Your task to perform on an android device: Set an alarm for 12pm Image 0: 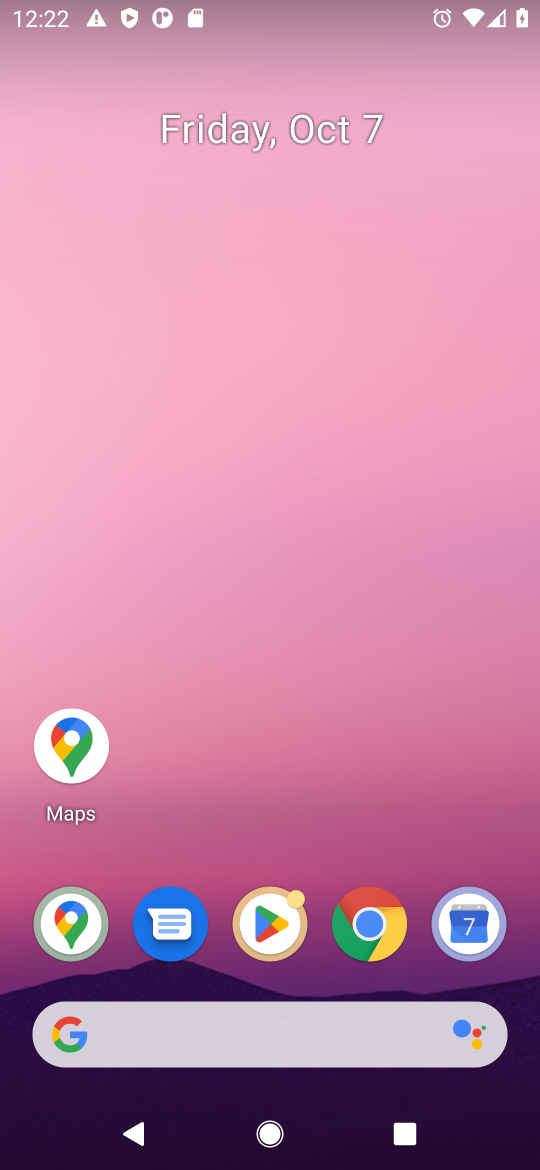
Step 0: drag from (290, 1006) to (512, 306)
Your task to perform on an android device: Set an alarm for 12pm Image 1: 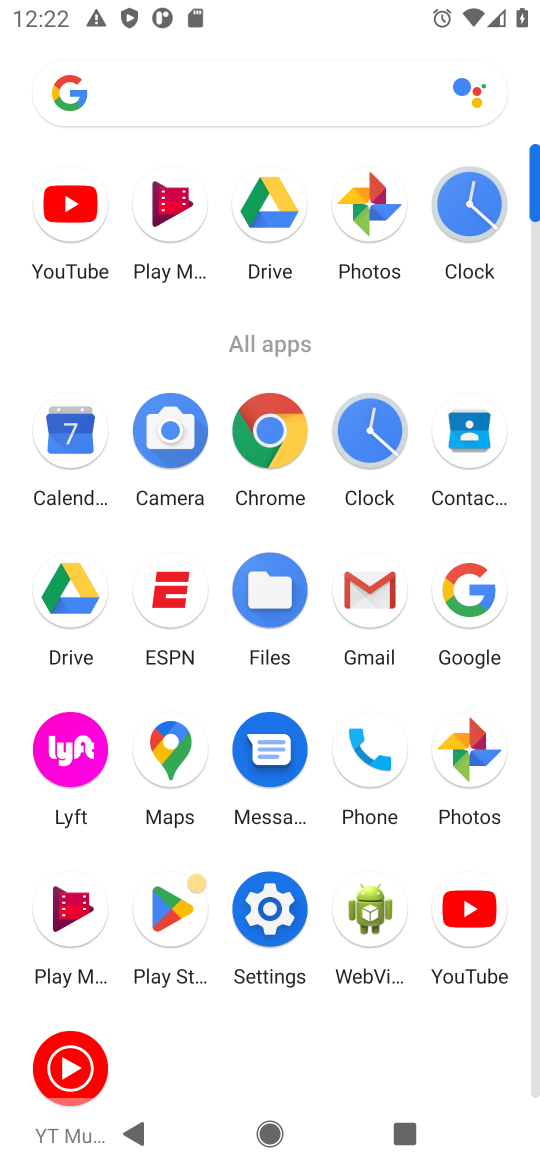
Step 1: click (473, 219)
Your task to perform on an android device: Set an alarm for 12pm Image 2: 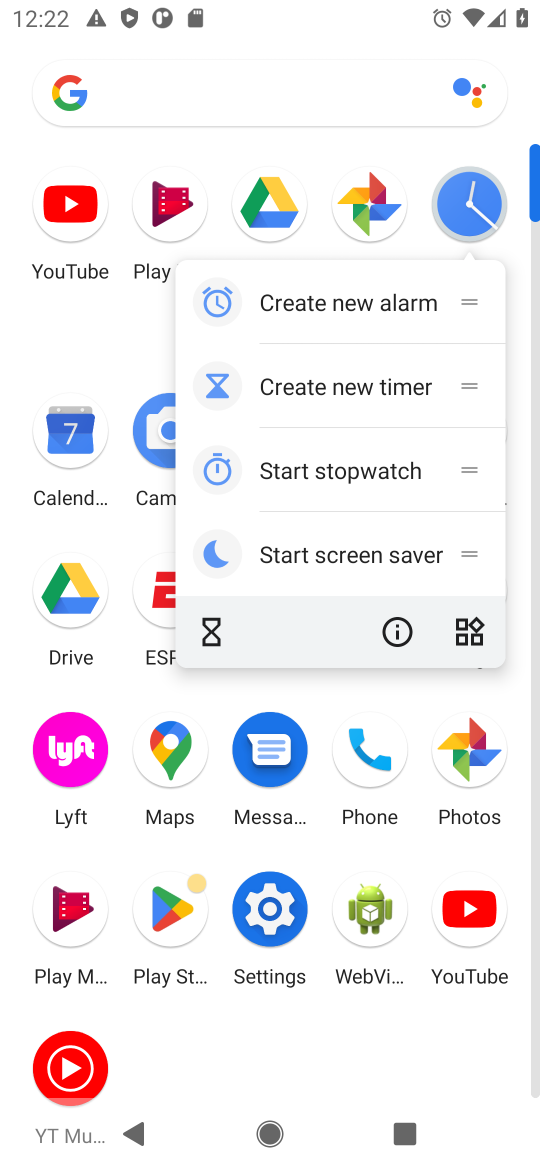
Step 2: click (458, 204)
Your task to perform on an android device: Set an alarm for 12pm Image 3: 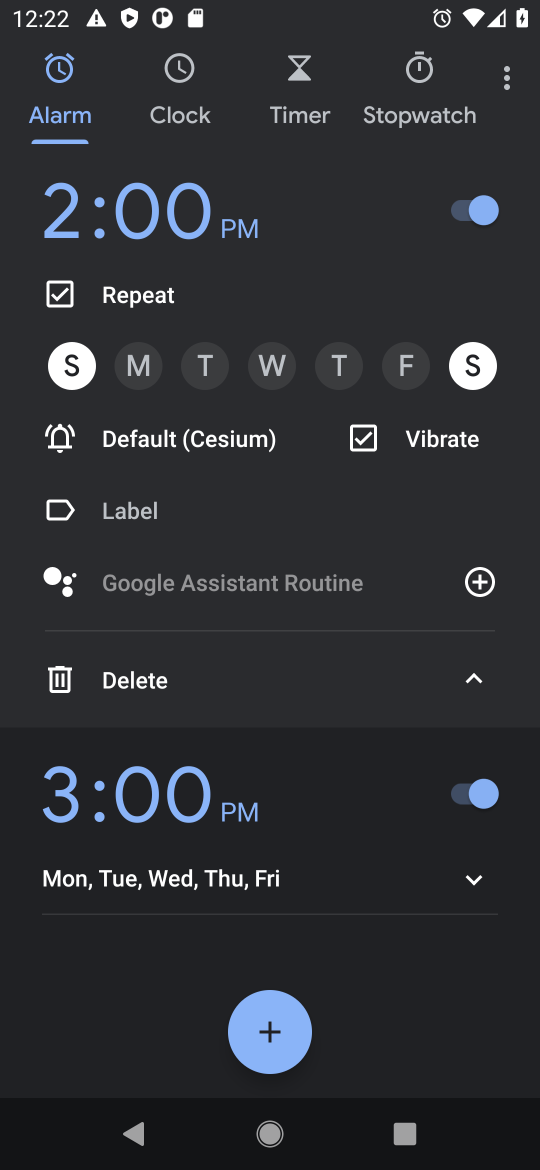
Step 3: click (241, 231)
Your task to perform on an android device: Set an alarm for 12pm Image 4: 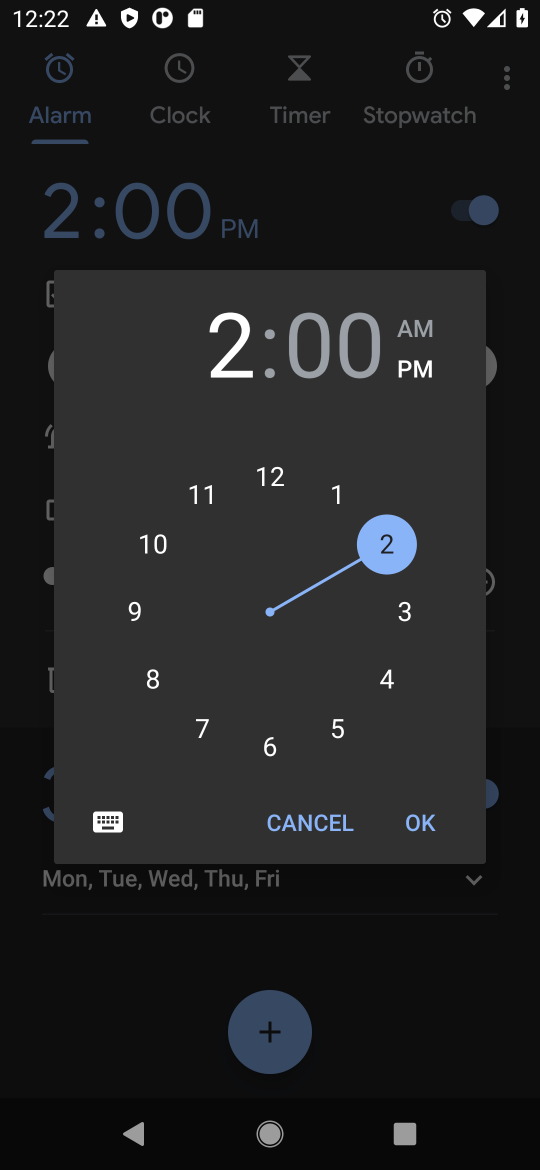
Step 4: click (265, 477)
Your task to perform on an android device: Set an alarm for 12pm Image 5: 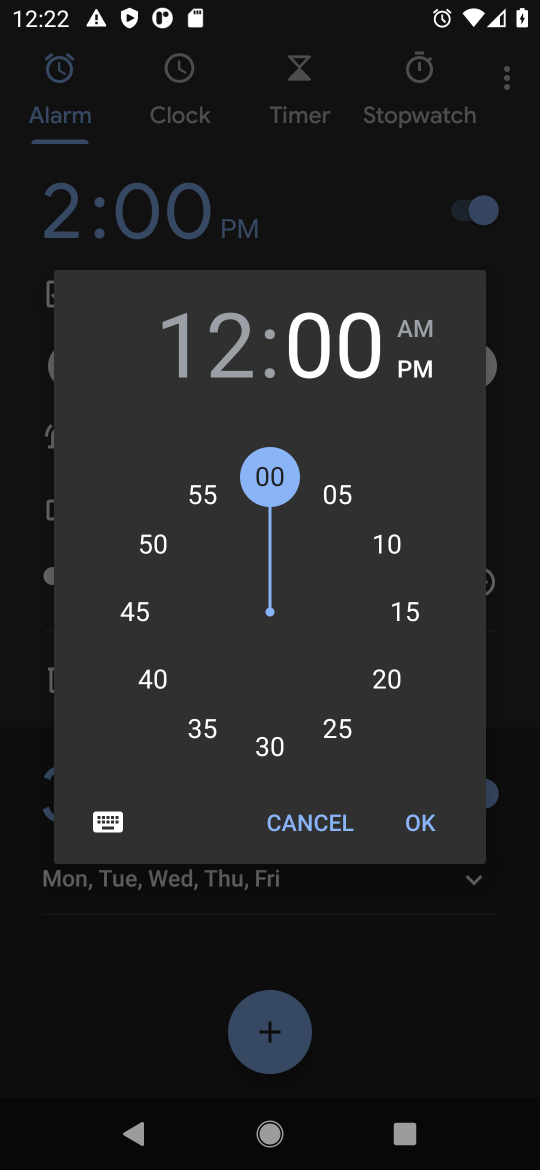
Step 5: click (432, 370)
Your task to perform on an android device: Set an alarm for 12pm Image 6: 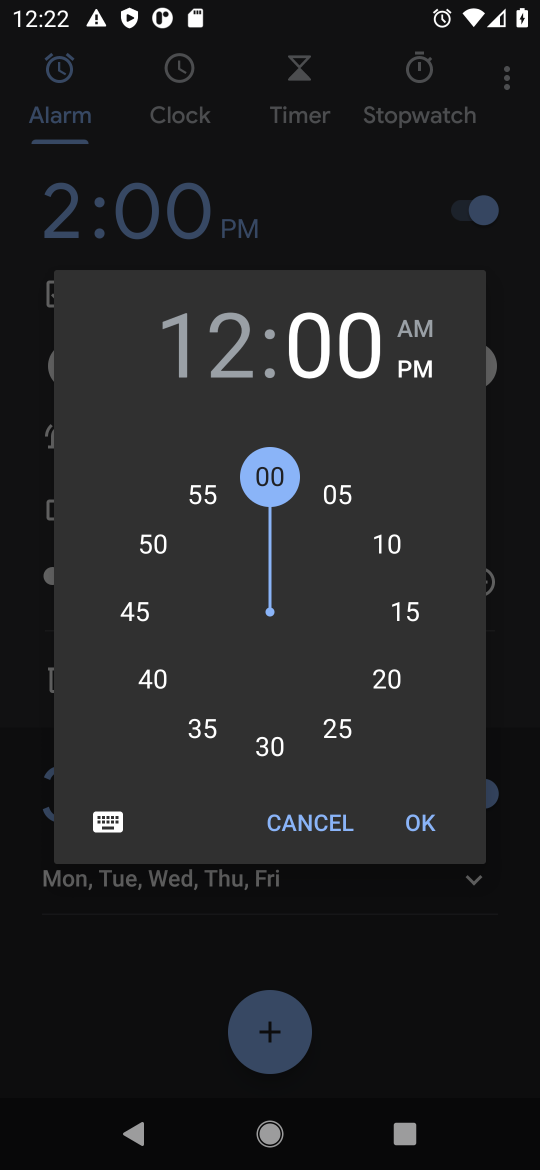
Step 6: click (429, 834)
Your task to perform on an android device: Set an alarm for 12pm Image 7: 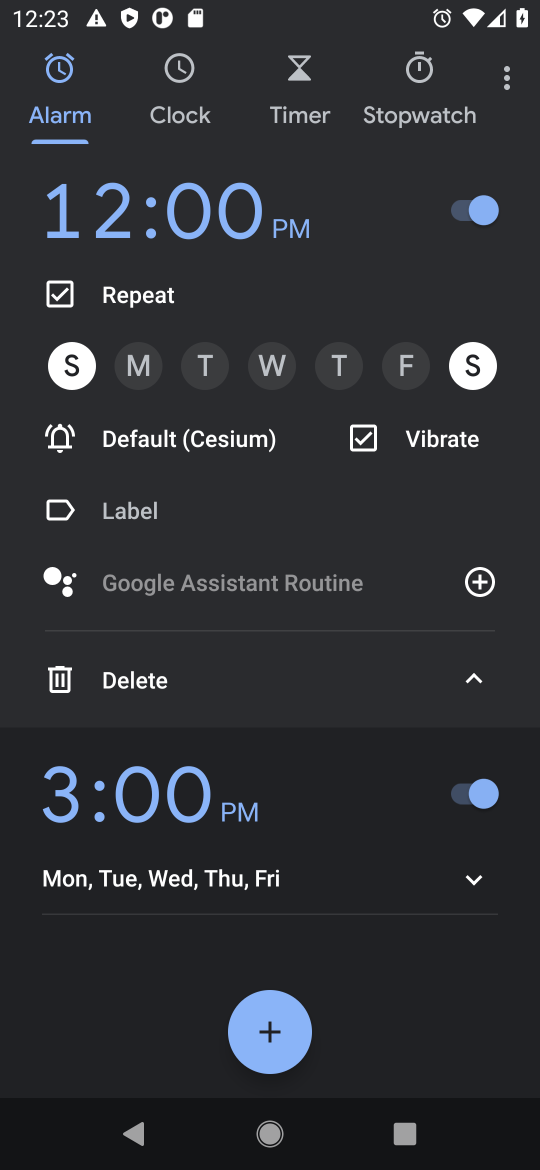
Step 7: task complete